Your task to perform on an android device: What's the weather today? Image 0: 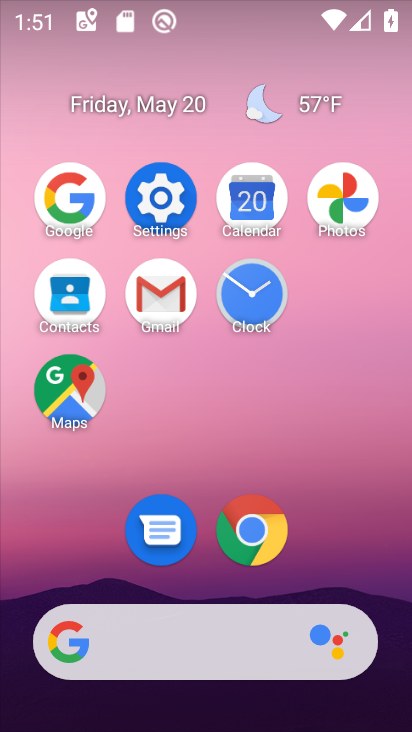
Step 0: click (73, 213)
Your task to perform on an android device: What's the weather today? Image 1: 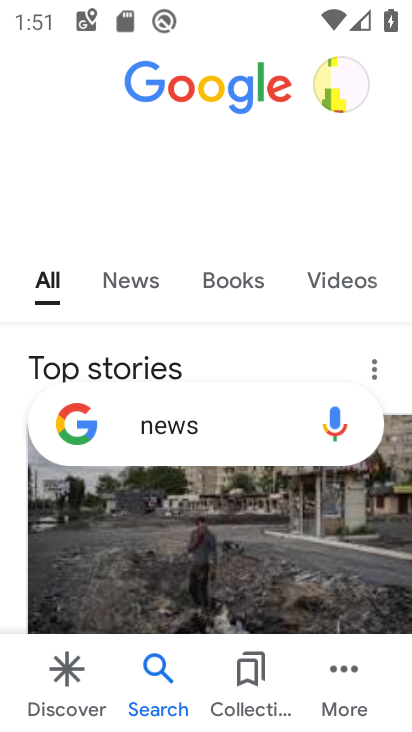
Step 1: click (216, 430)
Your task to perform on an android device: What's the weather today? Image 2: 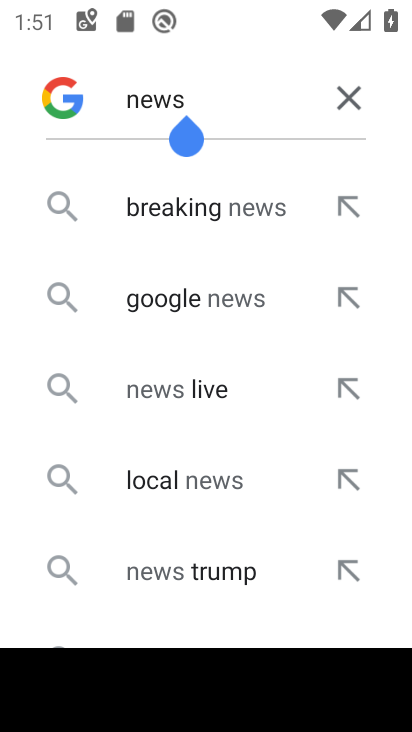
Step 2: click (337, 98)
Your task to perform on an android device: What's the weather today? Image 3: 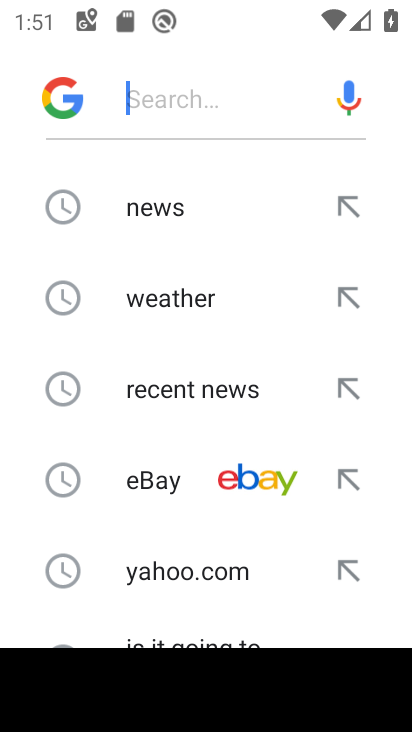
Step 3: click (182, 304)
Your task to perform on an android device: What's the weather today? Image 4: 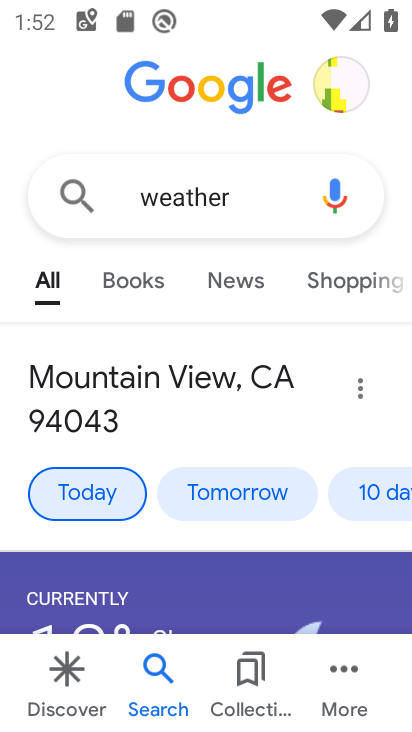
Step 4: task complete